Your task to perform on an android device: Empty the shopping cart on amazon. Add macbook pro 15 inch to the cart on amazon, then select checkout. Image 0: 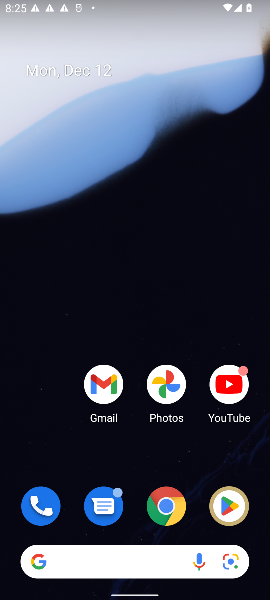
Step 0: click (78, 561)
Your task to perform on an android device: Empty the shopping cart on amazon. Add macbook pro 15 inch to the cart on amazon, then select checkout. Image 1: 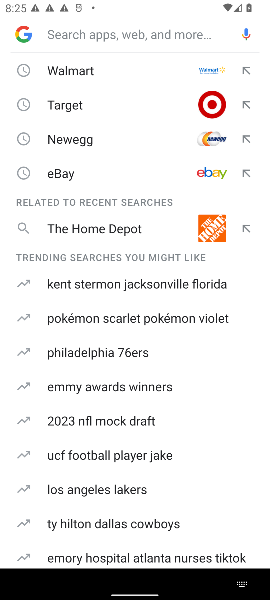
Step 1: type "amazon"
Your task to perform on an android device: Empty the shopping cart on amazon. Add macbook pro 15 inch to the cart on amazon, then select checkout. Image 2: 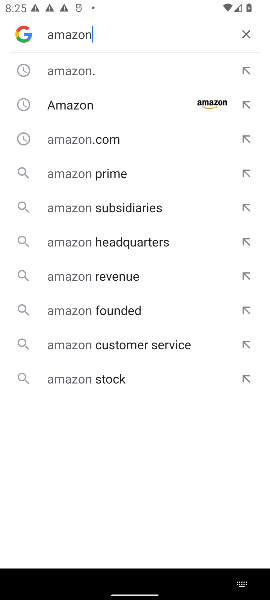
Step 2: click (127, 76)
Your task to perform on an android device: Empty the shopping cart on amazon. Add macbook pro 15 inch to the cart on amazon, then select checkout. Image 3: 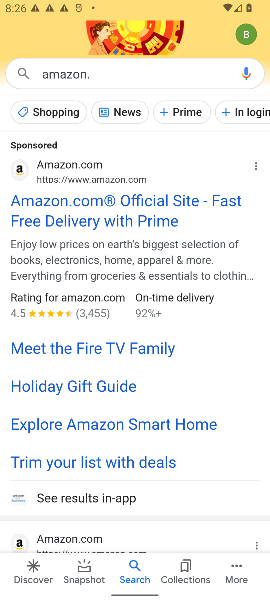
Step 3: click (46, 210)
Your task to perform on an android device: Empty the shopping cart on amazon. Add macbook pro 15 inch to the cart on amazon, then select checkout. Image 4: 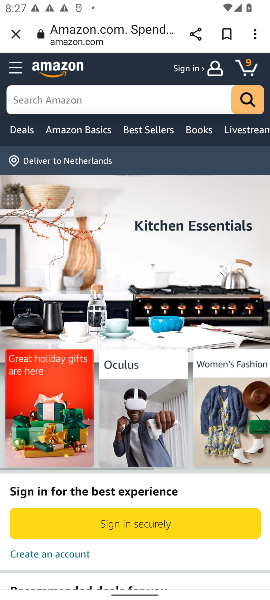
Step 4: click (13, 98)
Your task to perform on an android device: Empty the shopping cart on amazon. Add macbook pro 15 inch to the cart on amazon, then select checkout. Image 5: 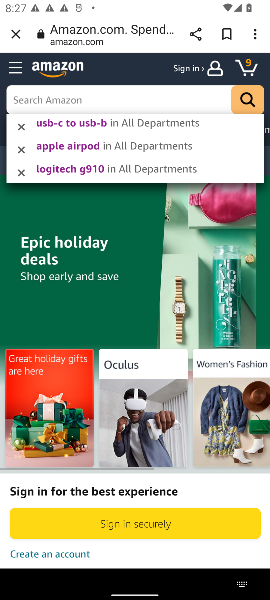
Step 5: type "macbook pro 15"
Your task to perform on an android device: Empty the shopping cart on amazon. Add macbook pro 15 inch to the cart on amazon, then select checkout. Image 6: 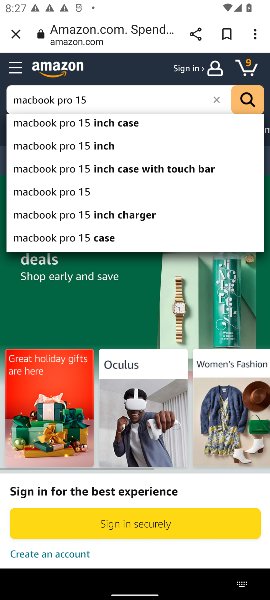
Step 6: click (112, 122)
Your task to perform on an android device: Empty the shopping cart on amazon. Add macbook pro 15 inch to the cart on amazon, then select checkout. Image 7: 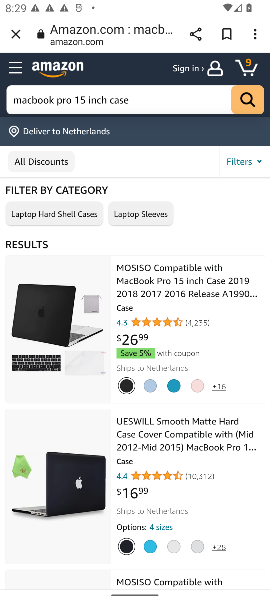
Step 7: task complete